Your task to perform on an android device: make emails show in primary in the gmail app Image 0: 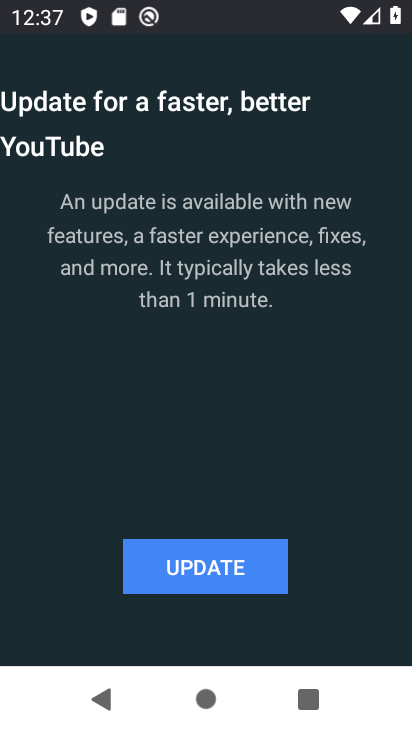
Step 0: press home button
Your task to perform on an android device: make emails show in primary in the gmail app Image 1: 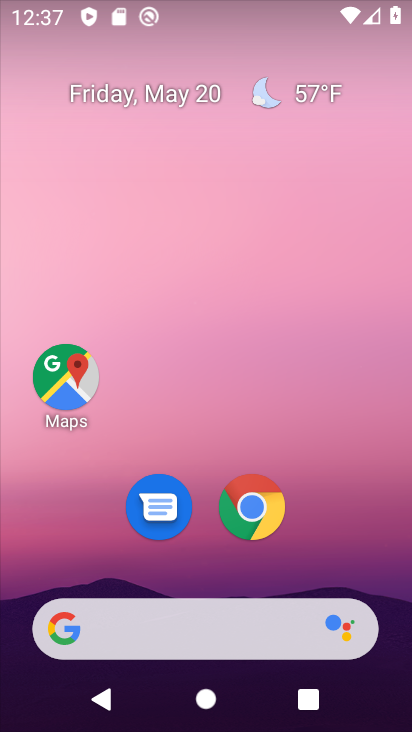
Step 1: drag from (353, 529) to (313, 0)
Your task to perform on an android device: make emails show in primary in the gmail app Image 2: 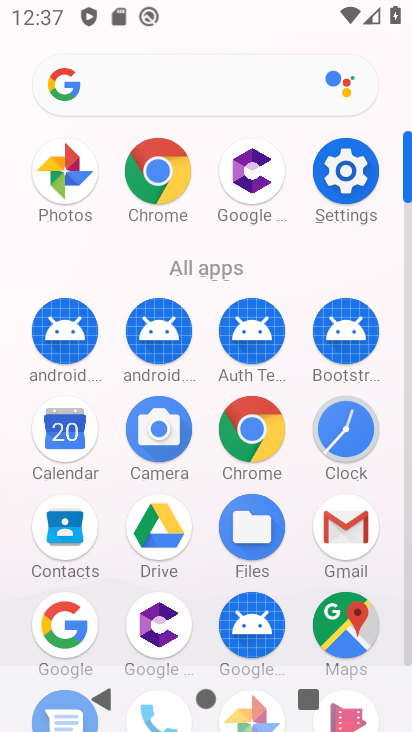
Step 2: click (326, 532)
Your task to perform on an android device: make emails show in primary in the gmail app Image 3: 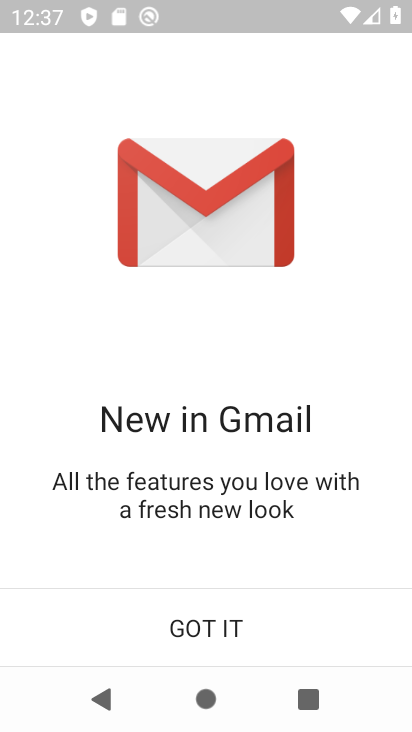
Step 3: click (195, 616)
Your task to perform on an android device: make emails show in primary in the gmail app Image 4: 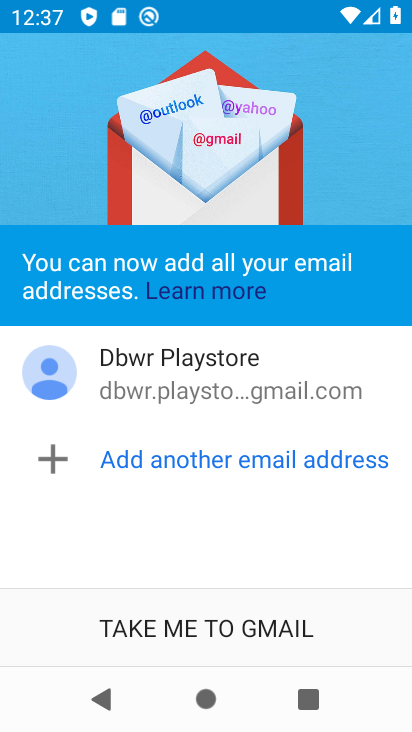
Step 4: click (186, 618)
Your task to perform on an android device: make emails show in primary in the gmail app Image 5: 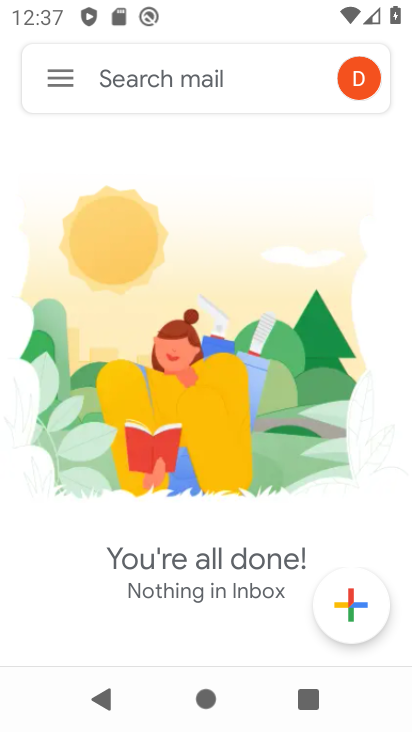
Step 5: click (63, 84)
Your task to perform on an android device: make emails show in primary in the gmail app Image 6: 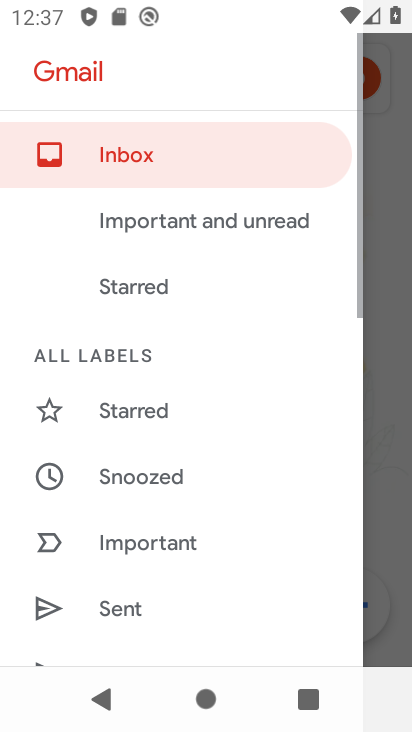
Step 6: drag from (158, 550) to (270, 63)
Your task to perform on an android device: make emails show in primary in the gmail app Image 7: 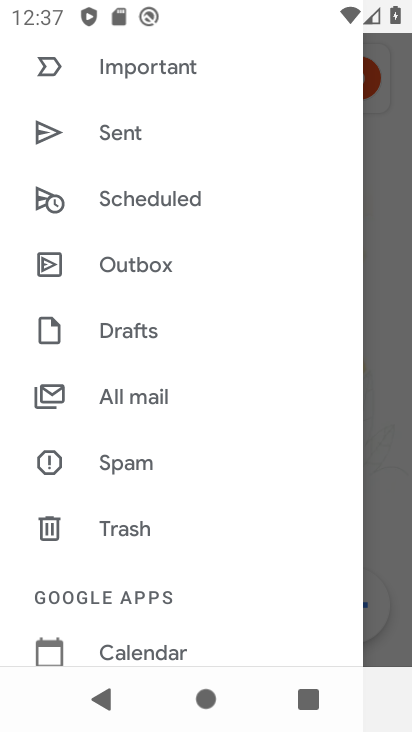
Step 7: drag from (135, 594) to (297, 302)
Your task to perform on an android device: make emails show in primary in the gmail app Image 8: 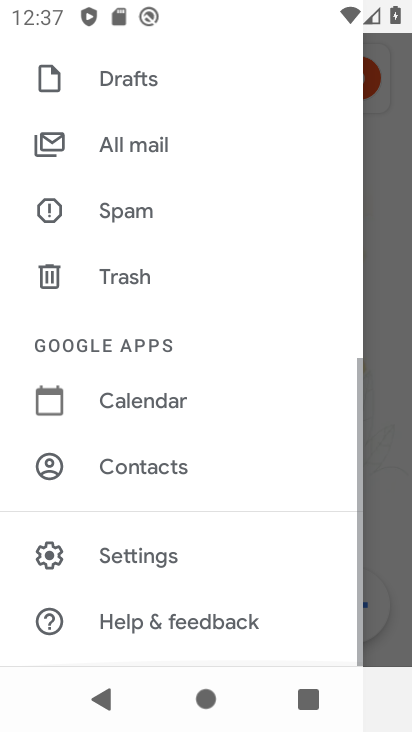
Step 8: click (325, 271)
Your task to perform on an android device: make emails show in primary in the gmail app Image 9: 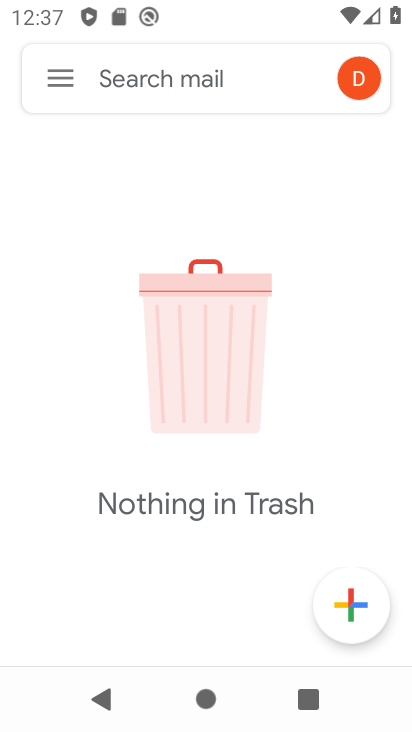
Step 9: click (60, 66)
Your task to perform on an android device: make emails show in primary in the gmail app Image 10: 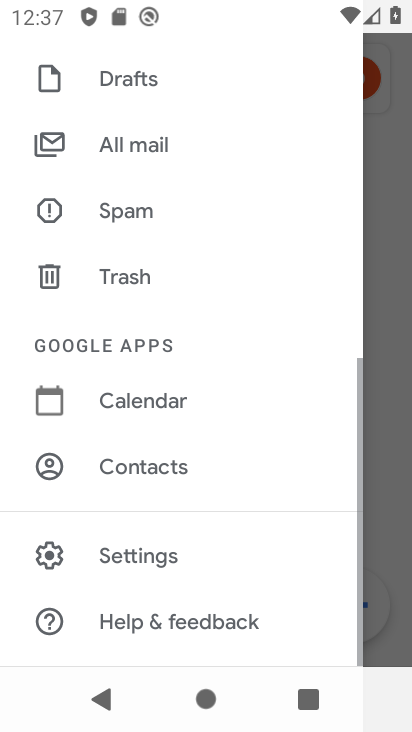
Step 10: click (135, 582)
Your task to perform on an android device: make emails show in primary in the gmail app Image 11: 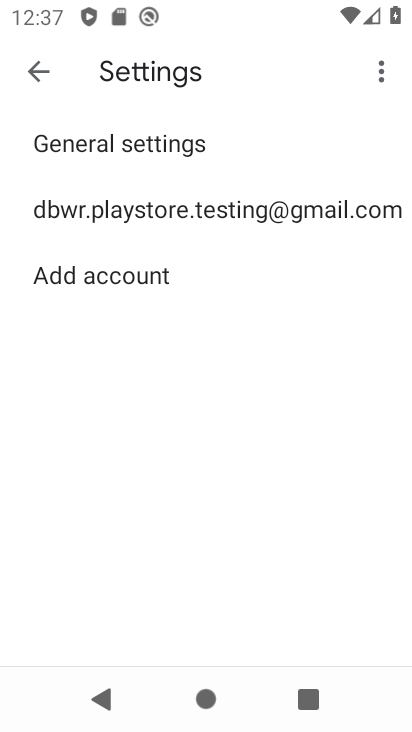
Step 11: click (220, 217)
Your task to perform on an android device: make emails show in primary in the gmail app Image 12: 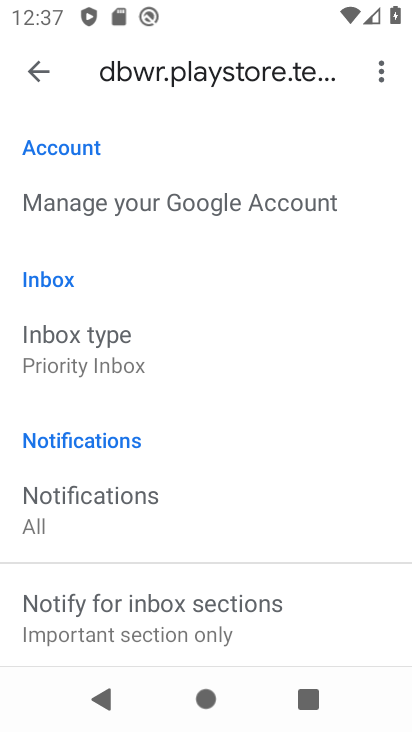
Step 12: click (115, 358)
Your task to perform on an android device: make emails show in primary in the gmail app Image 13: 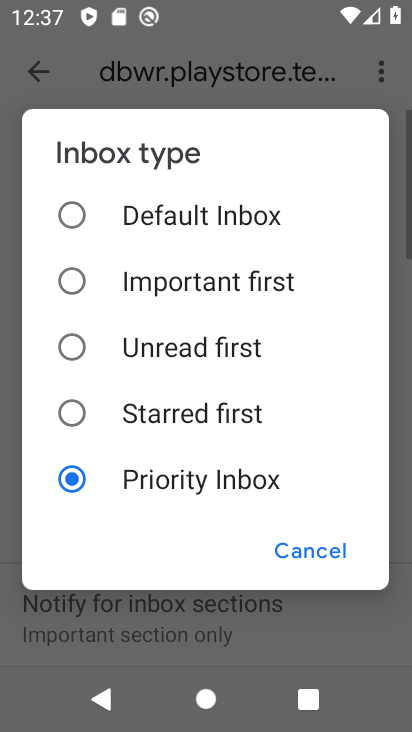
Step 13: click (43, 84)
Your task to perform on an android device: make emails show in primary in the gmail app Image 14: 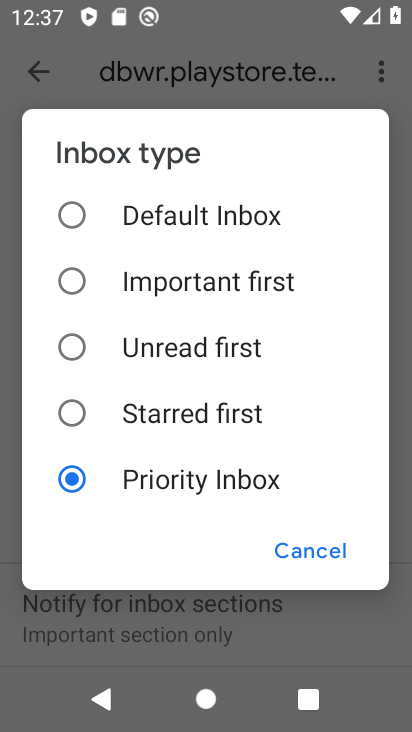
Step 14: click (114, 212)
Your task to perform on an android device: make emails show in primary in the gmail app Image 15: 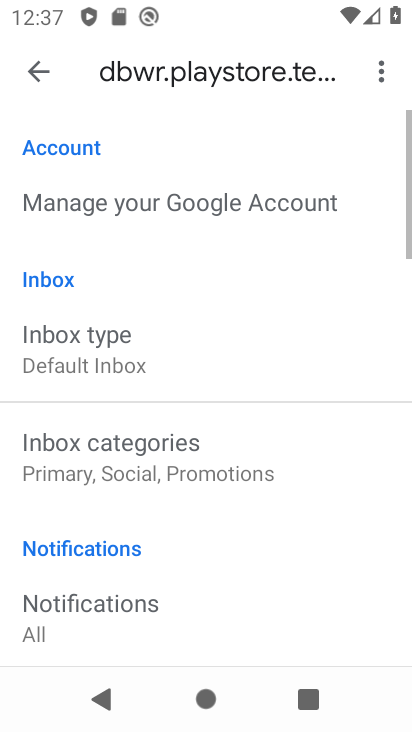
Step 15: click (79, 454)
Your task to perform on an android device: make emails show in primary in the gmail app Image 16: 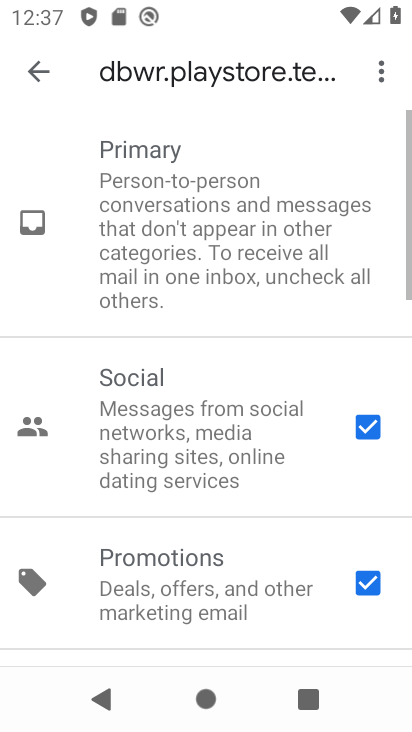
Step 16: task complete